Your task to perform on an android device: change your default location settings in chrome Image 0: 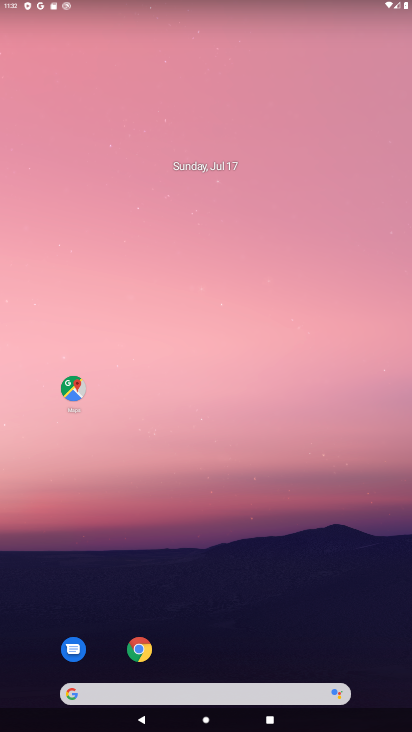
Step 0: click (138, 653)
Your task to perform on an android device: change your default location settings in chrome Image 1: 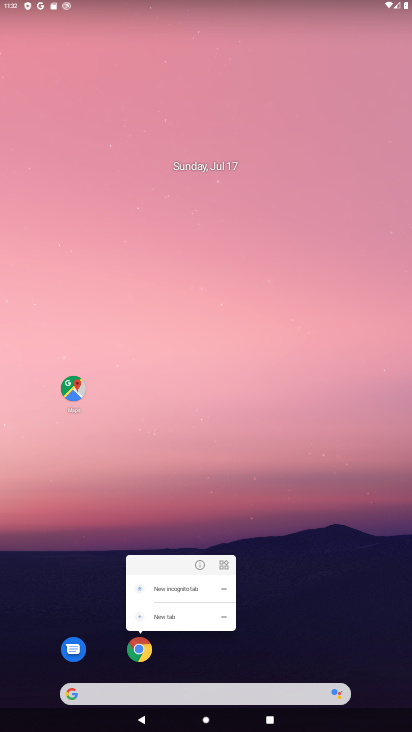
Step 1: click (136, 663)
Your task to perform on an android device: change your default location settings in chrome Image 2: 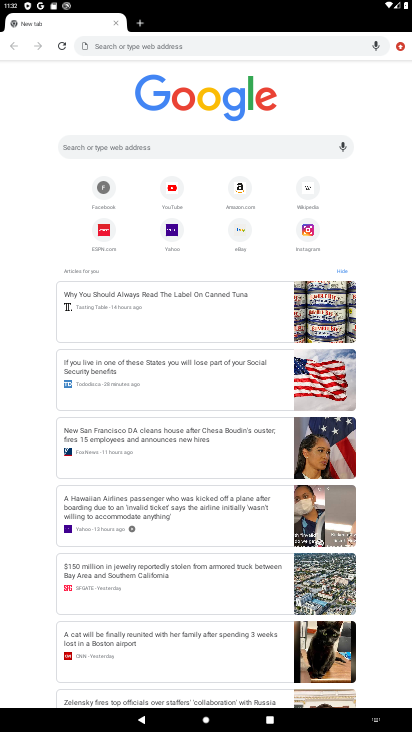
Step 2: click (397, 45)
Your task to perform on an android device: change your default location settings in chrome Image 3: 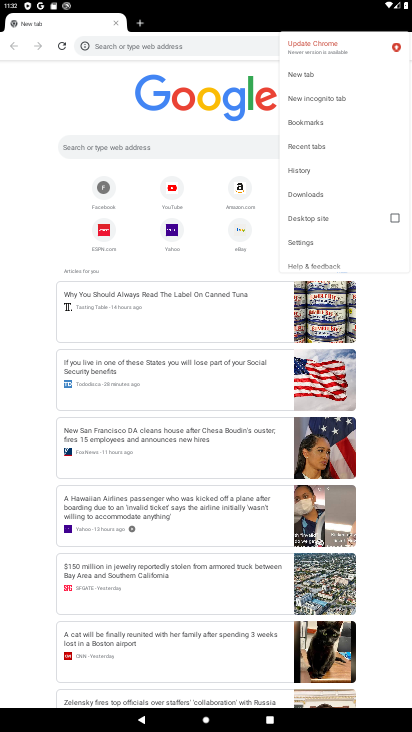
Step 3: click (314, 243)
Your task to perform on an android device: change your default location settings in chrome Image 4: 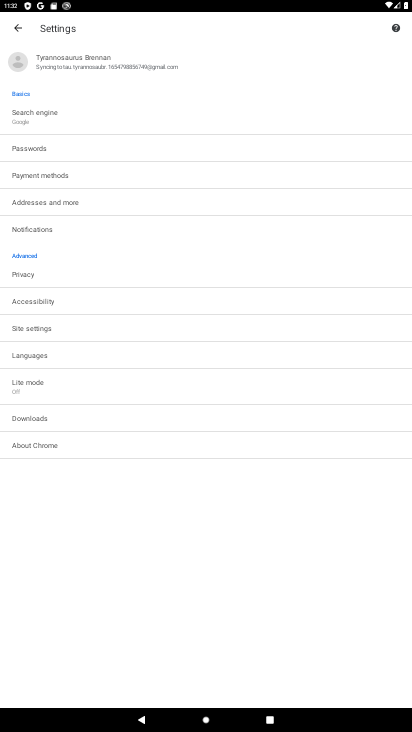
Step 4: click (49, 330)
Your task to perform on an android device: change your default location settings in chrome Image 5: 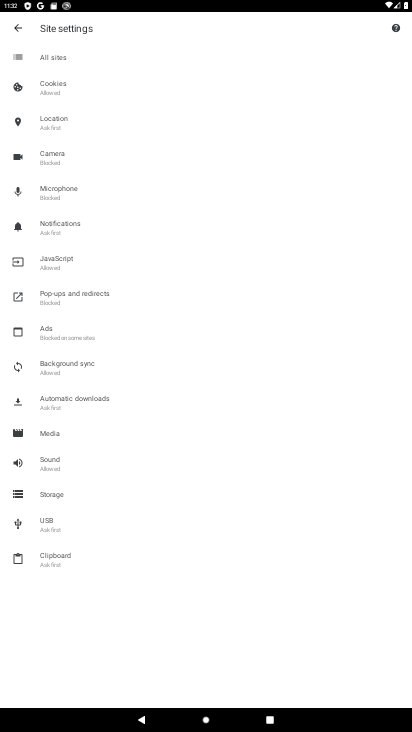
Step 5: click (86, 135)
Your task to perform on an android device: change your default location settings in chrome Image 6: 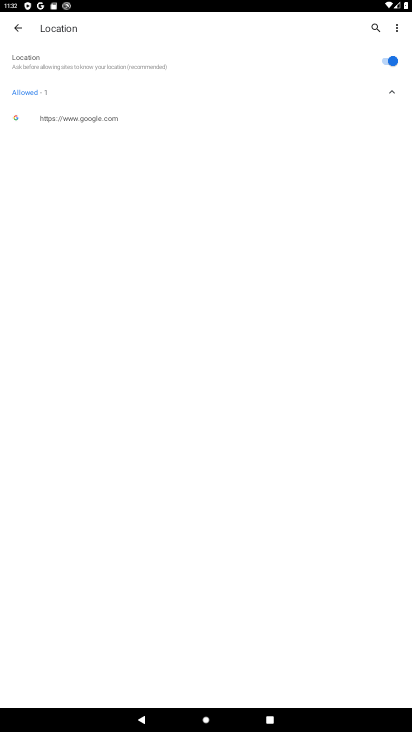
Step 6: click (387, 56)
Your task to perform on an android device: change your default location settings in chrome Image 7: 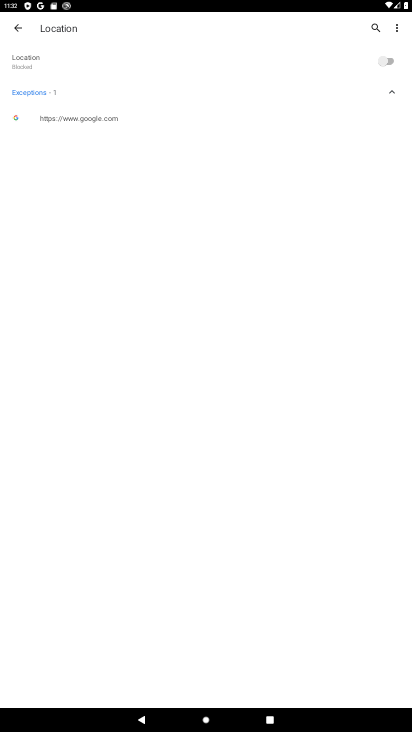
Step 7: task complete